Your task to perform on an android device: Open the web browser Image 0: 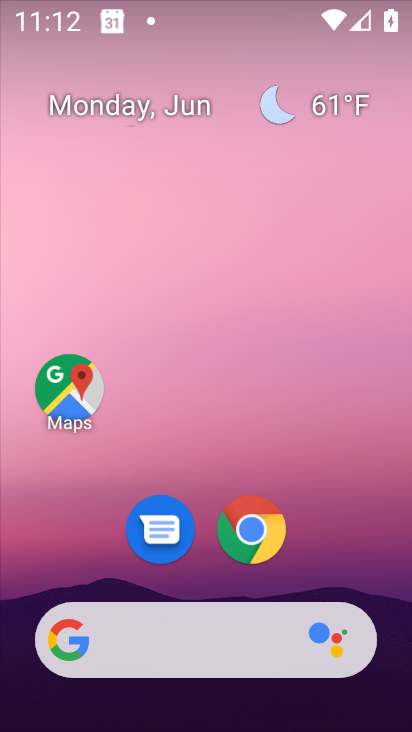
Step 0: drag from (139, 565) to (218, 143)
Your task to perform on an android device: Open the web browser Image 1: 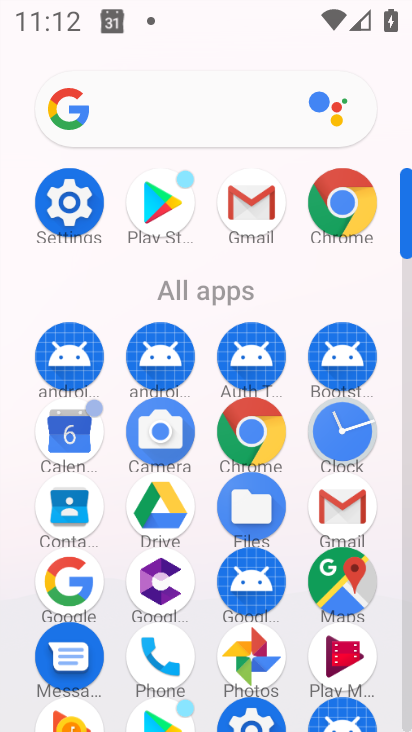
Step 1: click (82, 587)
Your task to perform on an android device: Open the web browser Image 2: 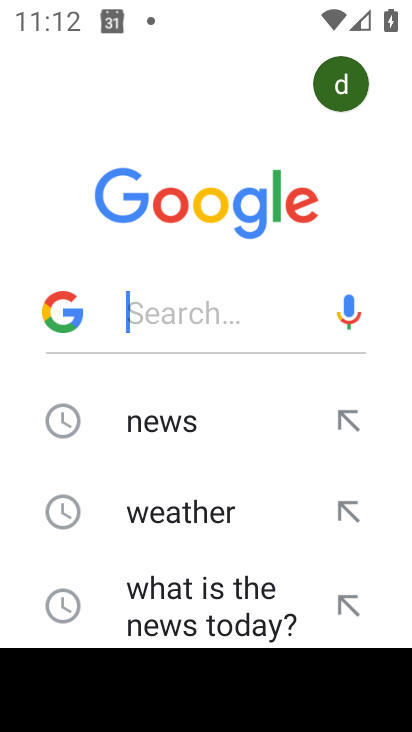
Step 2: task complete